Your task to perform on an android device: find photos in the google photos app Image 0: 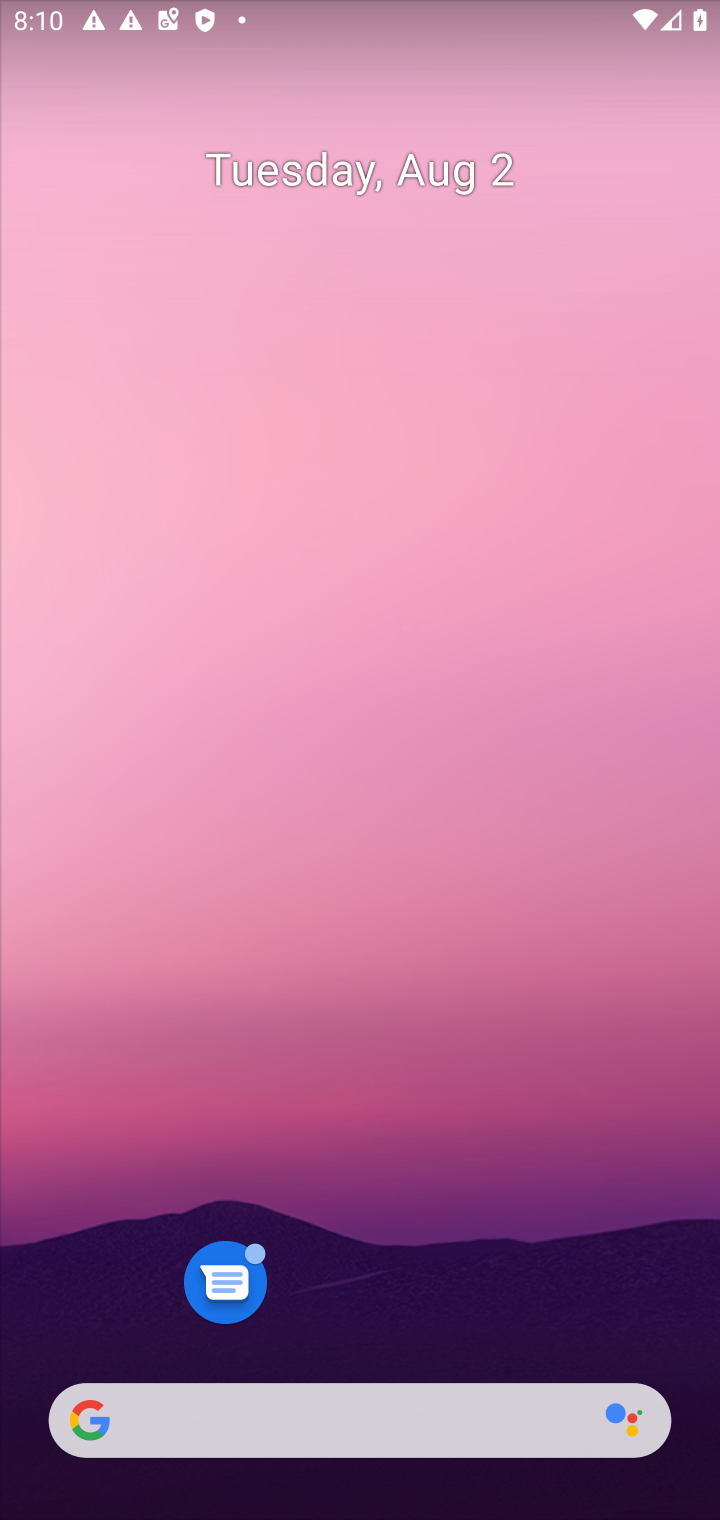
Step 0: drag from (348, 1419) to (394, 129)
Your task to perform on an android device: find photos in the google photos app Image 1: 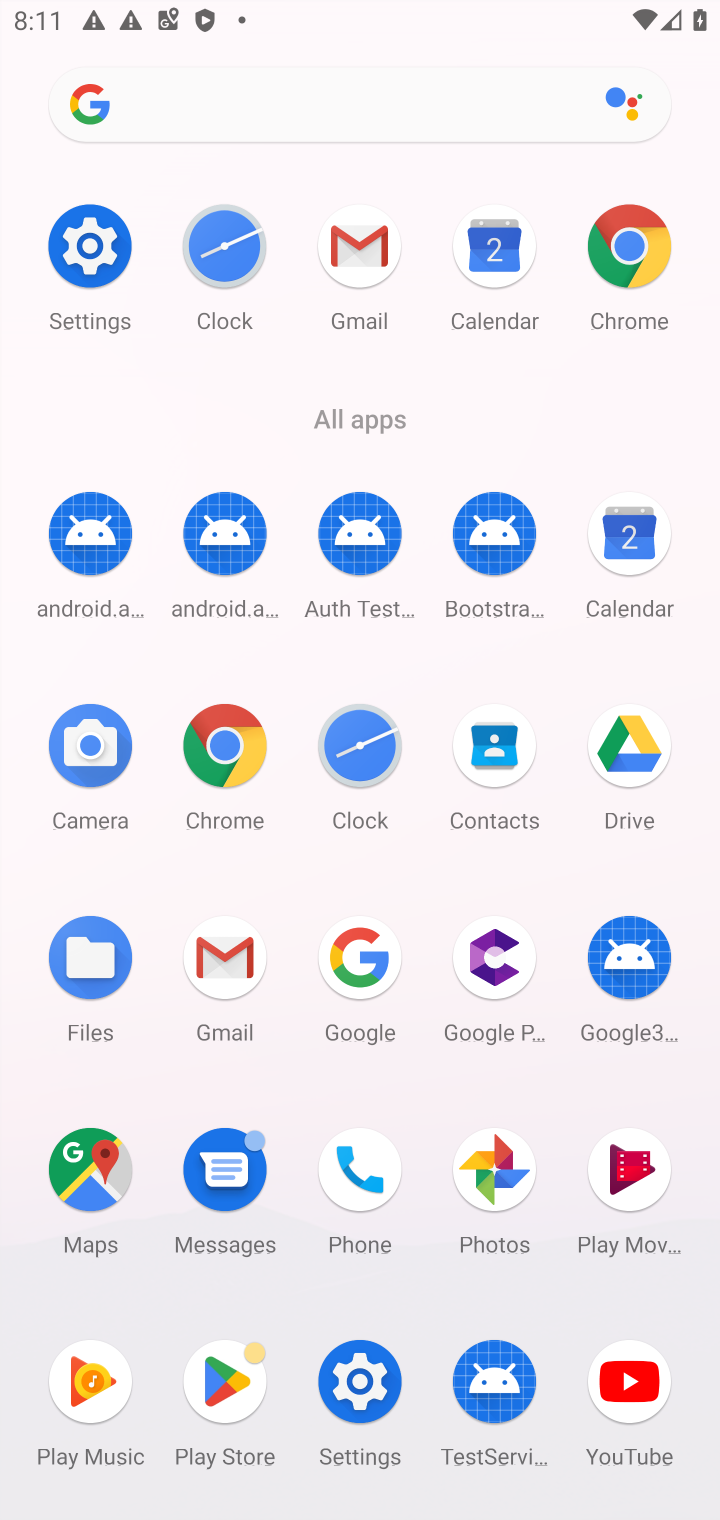
Step 1: click (497, 1147)
Your task to perform on an android device: find photos in the google photos app Image 2: 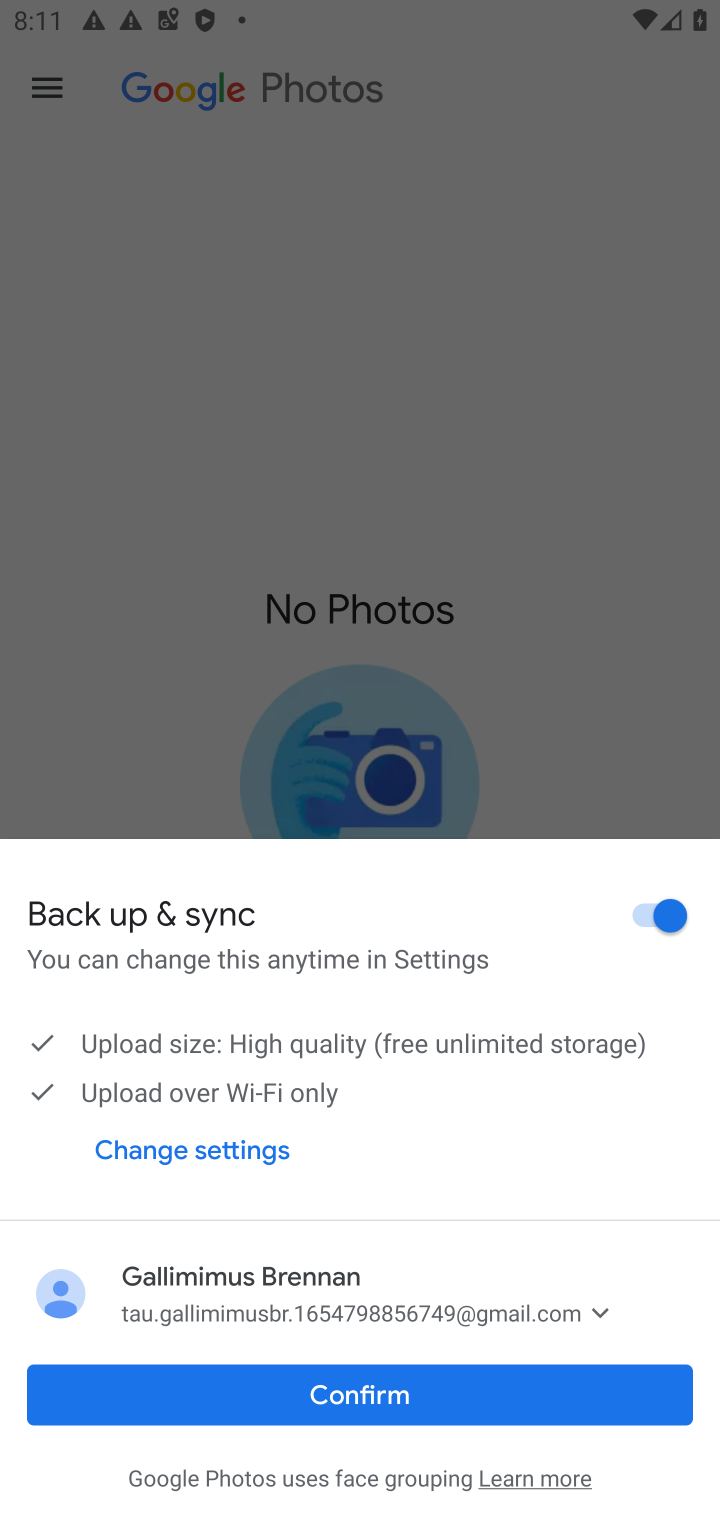
Step 2: click (424, 1419)
Your task to perform on an android device: find photos in the google photos app Image 3: 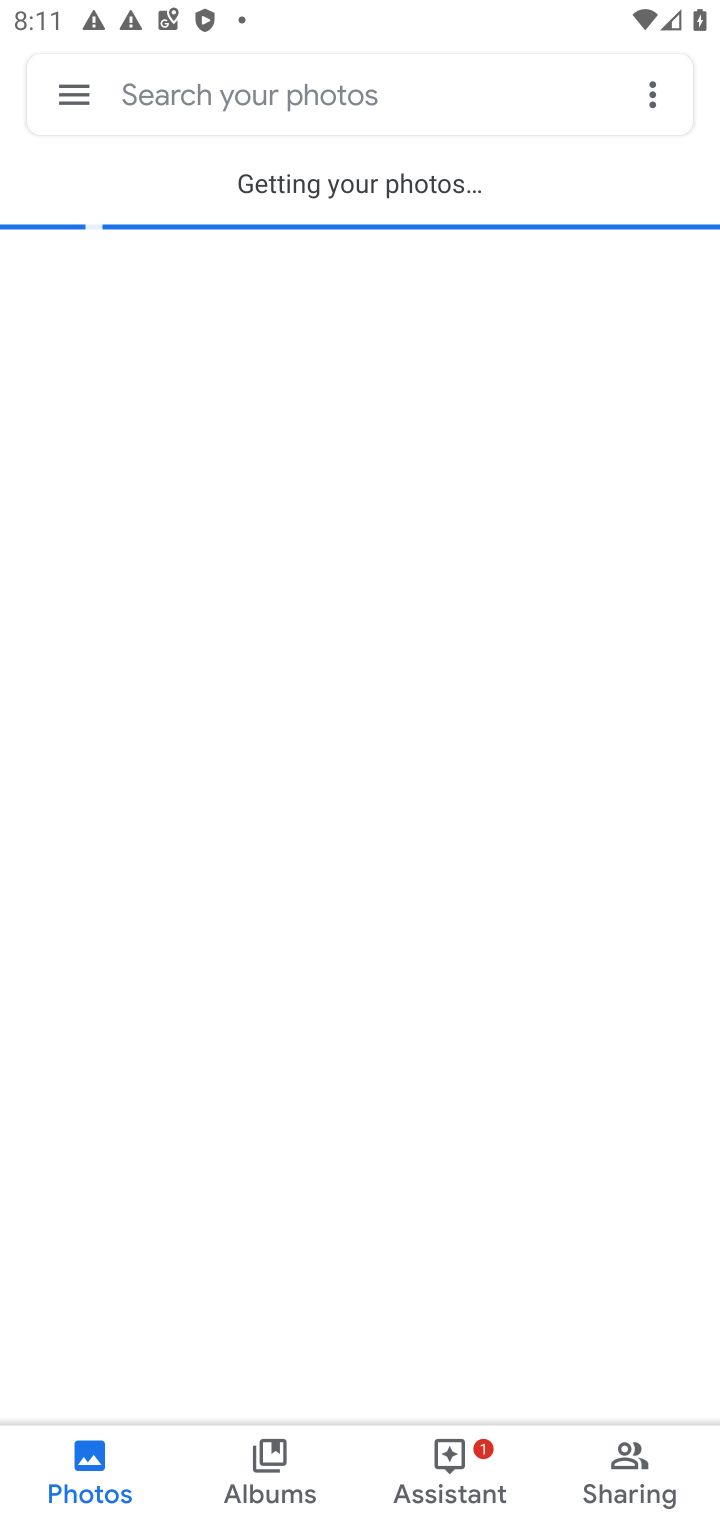
Step 3: task complete